Your task to perform on an android device: turn on the 12-hour format for clock Image 0: 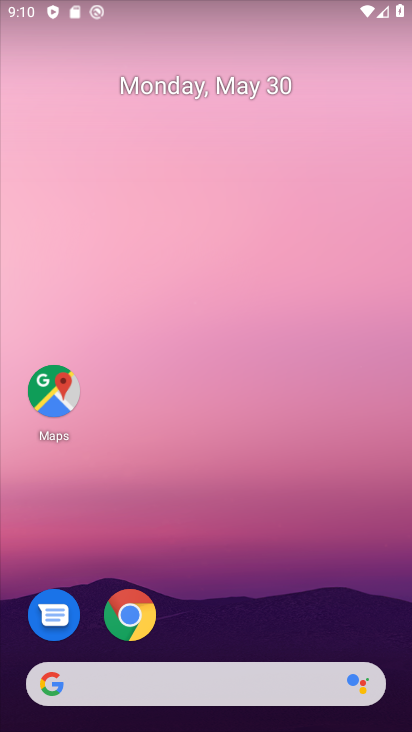
Step 0: drag from (147, 417) to (204, 59)
Your task to perform on an android device: turn on the 12-hour format for clock Image 1: 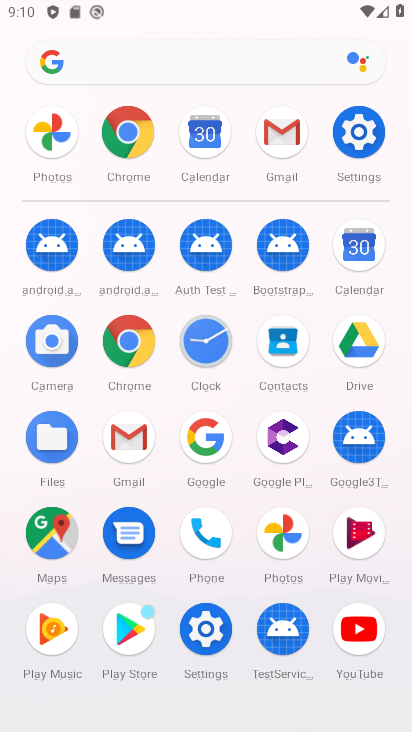
Step 1: click (353, 122)
Your task to perform on an android device: turn on the 12-hour format for clock Image 2: 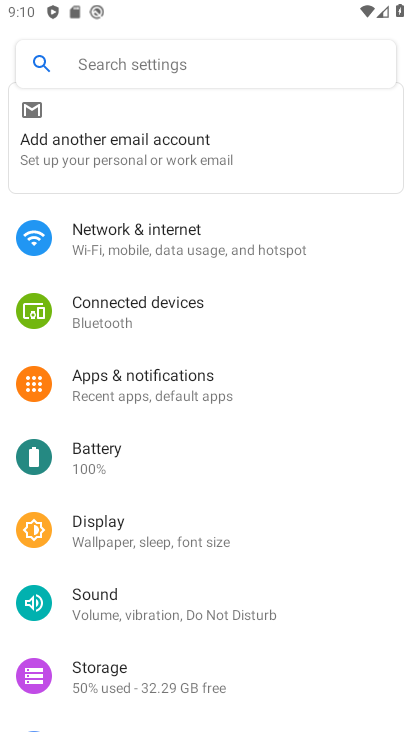
Step 2: drag from (217, 637) to (256, 298)
Your task to perform on an android device: turn on the 12-hour format for clock Image 3: 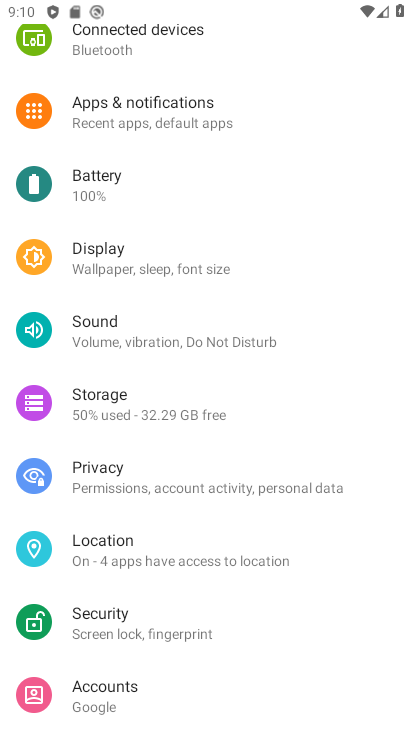
Step 3: drag from (113, 647) to (162, 349)
Your task to perform on an android device: turn on the 12-hour format for clock Image 4: 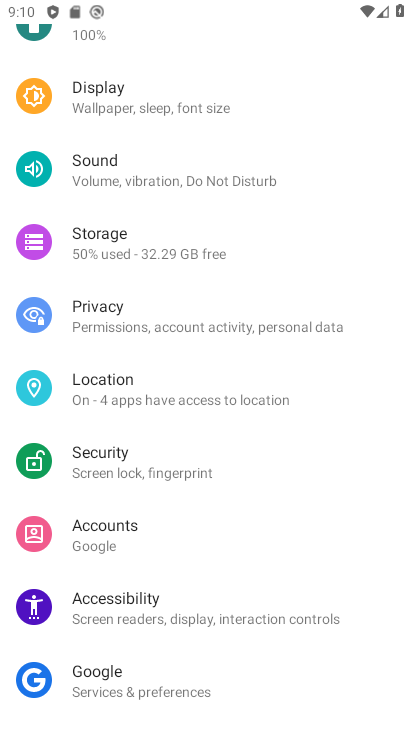
Step 4: drag from (163, 616) to (232, 322)
Your task to perform on an android device: turn on the 12-hour format for clock Image 5: 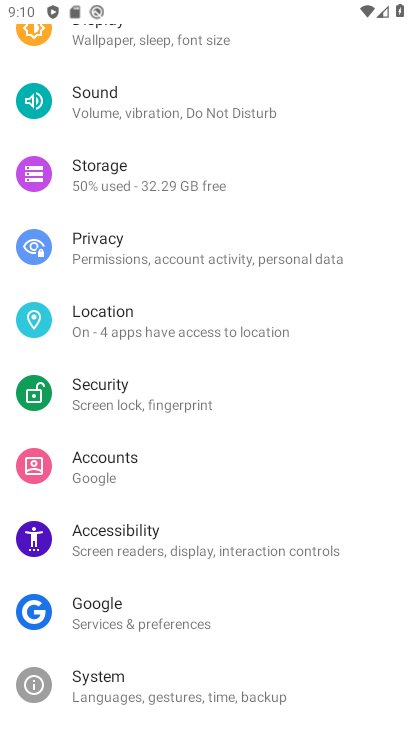
Step 5: click (116, 677)
Your task to perform on an android device: turn on the 12-hour format for clock Image 6: 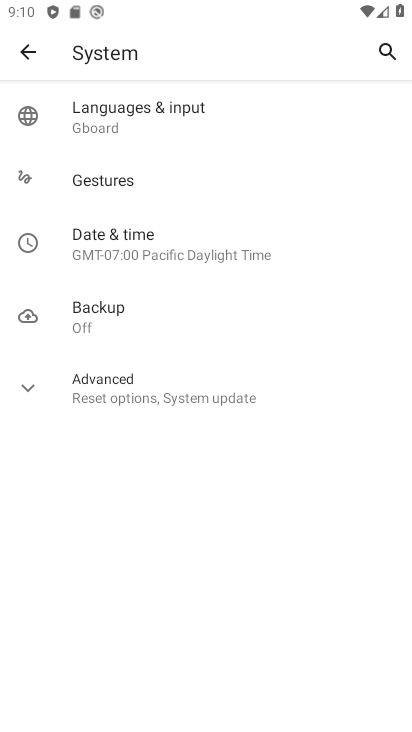
Step 6: click (202, 260)
Your task to perform on an android device: turn on the 12-hour format for clock Image 7: 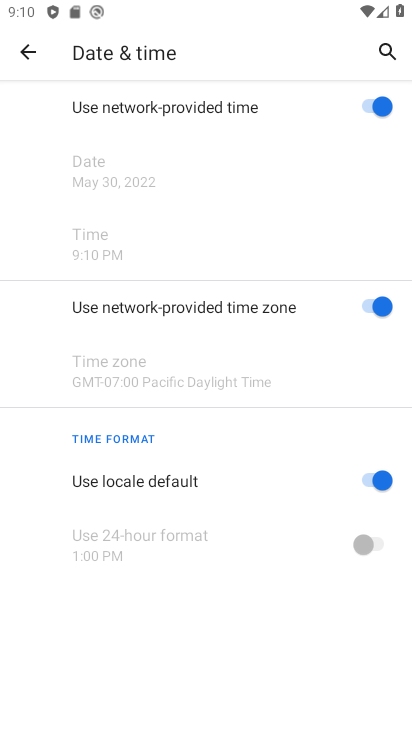
Step 7: task complete